Your task to perform on an android device: Turn on the flashlight Image 0: 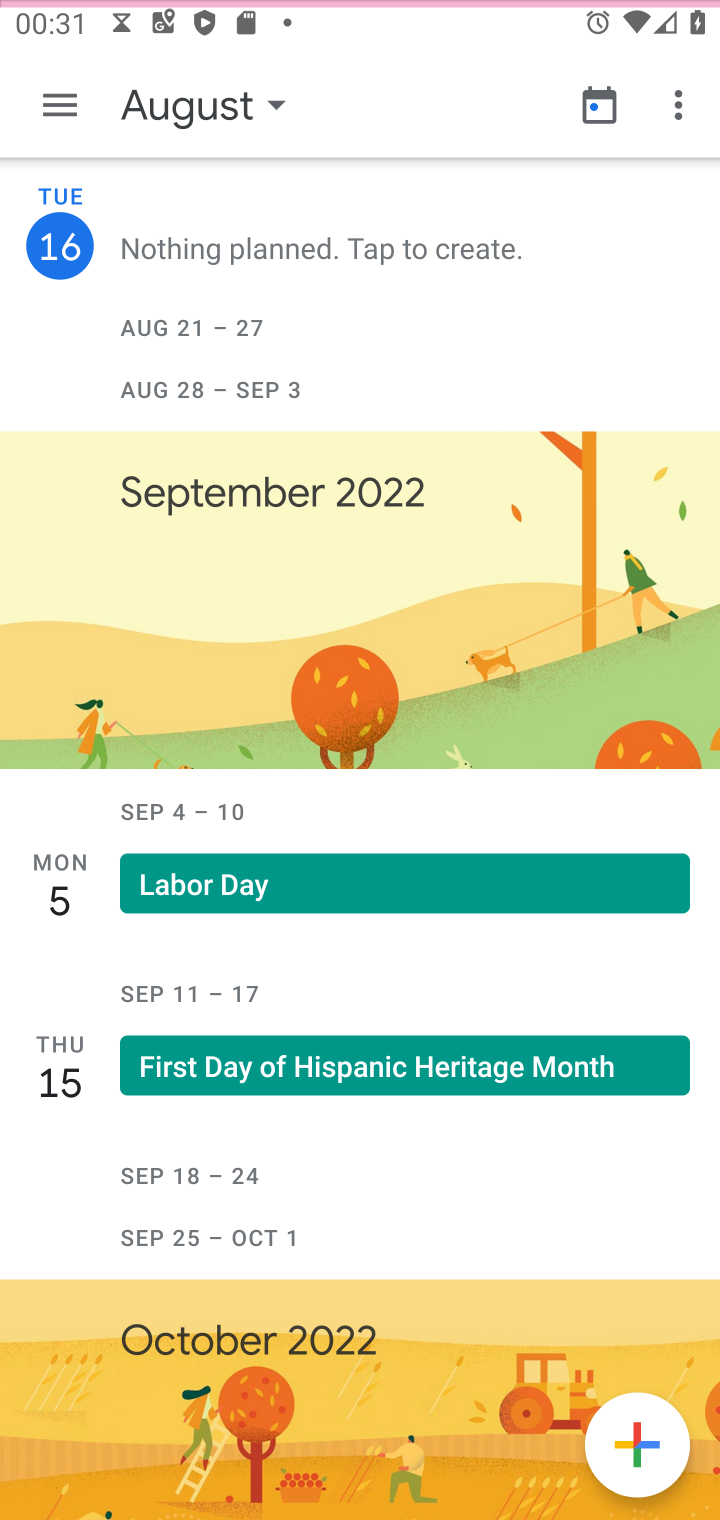
Step 0: press home button
Your task to perform on an android device: Turn on the flashlight Image 1: 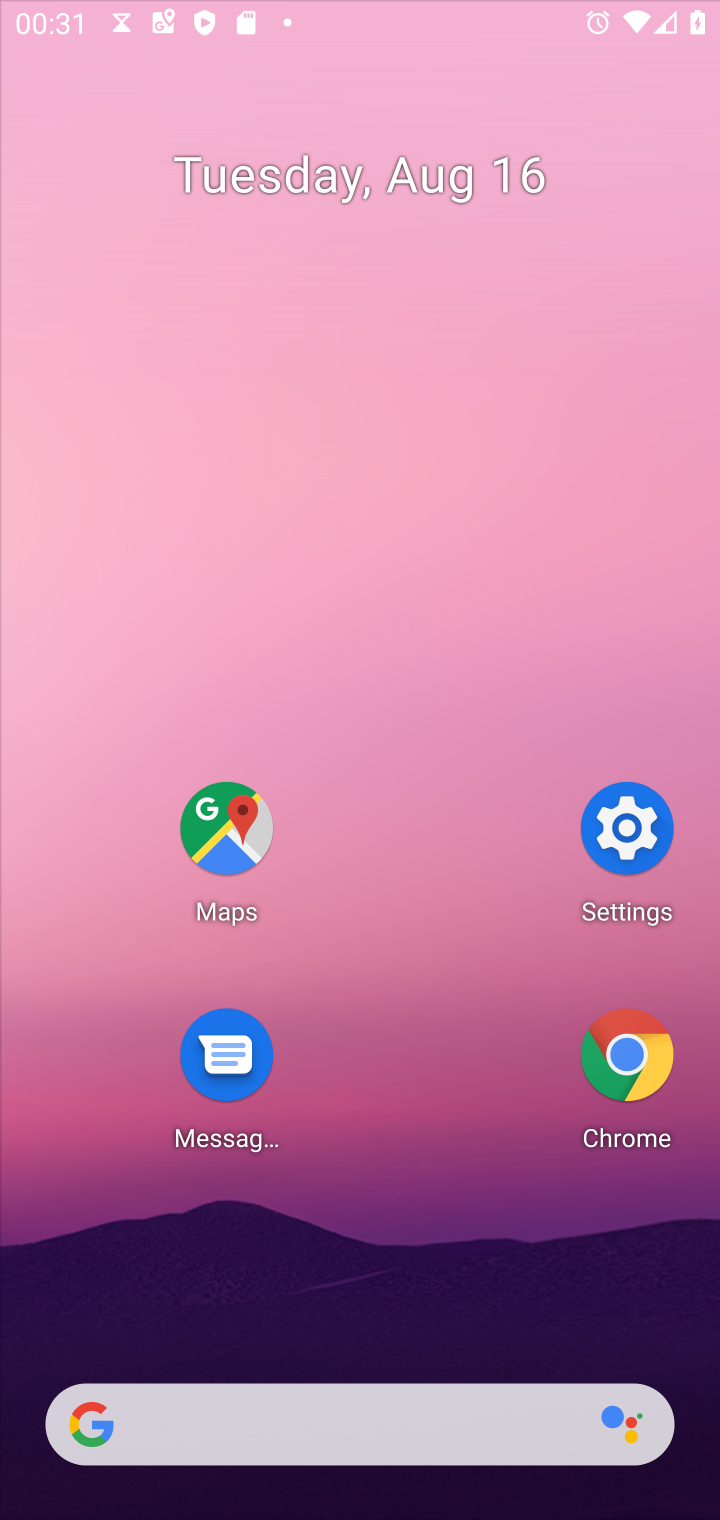
Step 1: task complete